Your task to perform on an android device: toggle notifications settings in the gmail app Image 0: 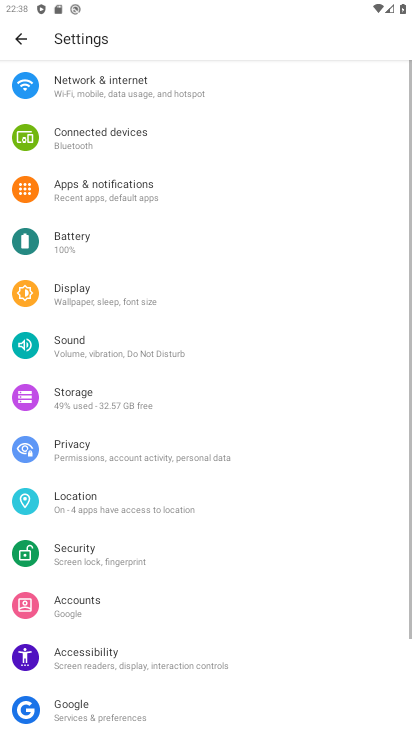
Step 0: press home button
Your task to perform on an android device: toggle notifications settings in the gmail app Image 1: 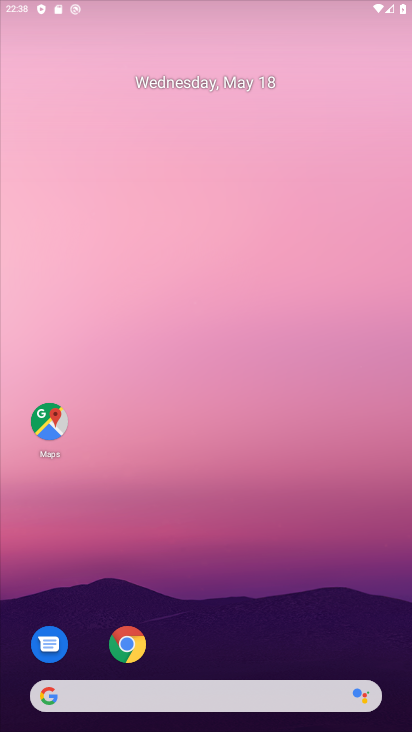
Step 1: drag from (350, 566) to (208, 150)
Your task to perform on an android device: toggle notifications settings in the gmail app Image 2: 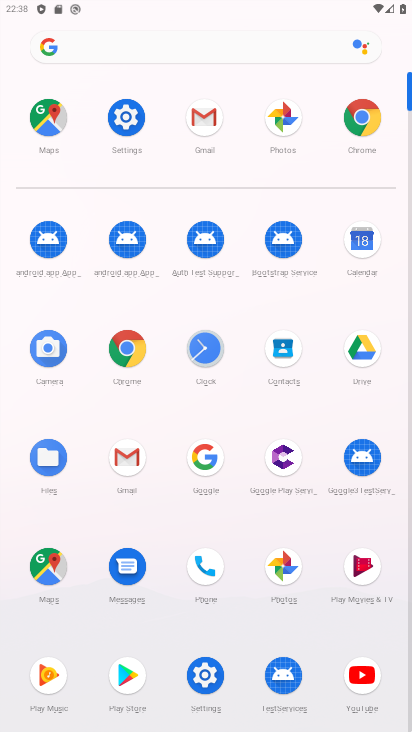
Step 2: click (198, 120)
Your task to perform on an android device: toggle notifications settings in the gmail app Image 3: 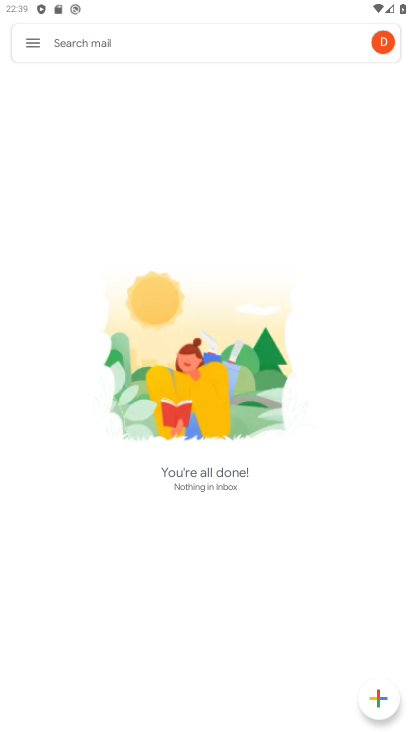
Step 3: click (36, 48)
Your task to perform on an android device: toggle notifications settings in the gmail app Image 4: 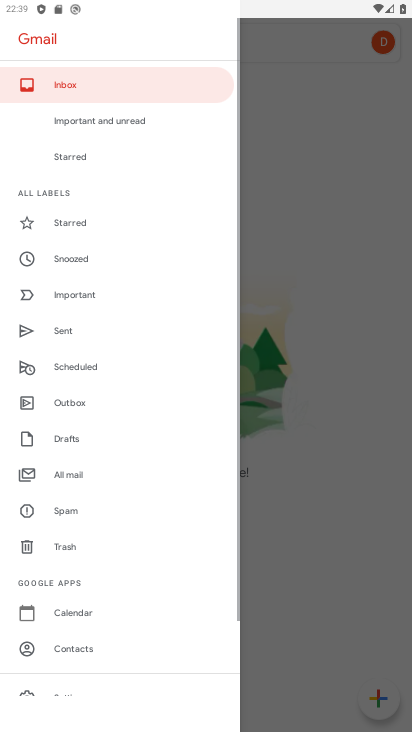
Step 4: drag from (138, 605) to (169, 227)
Your task to perform on an android device: toggle notifications settings in the gmail app Image 5: 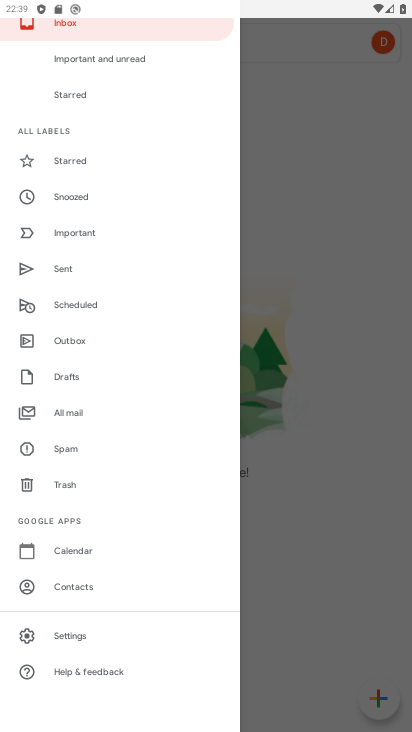
Step 5: click (87, 642)
Your task to perform on an android device: toggle notifications settings in the gmail app Image 6: 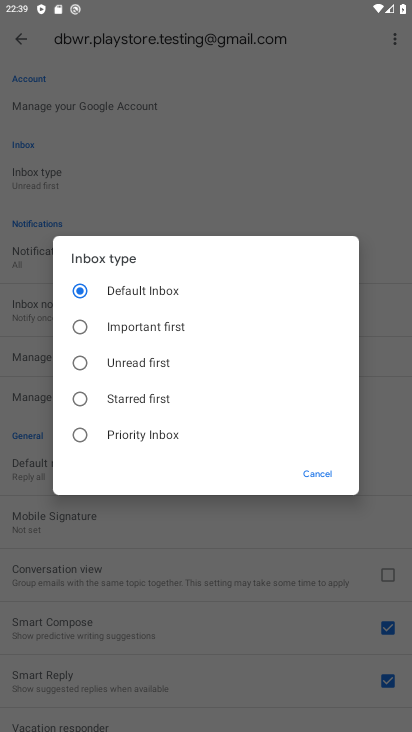
Step 6: click (331, 468)
Your task to perform on an android device: toggle notifications settings in the gmail app Image 7: 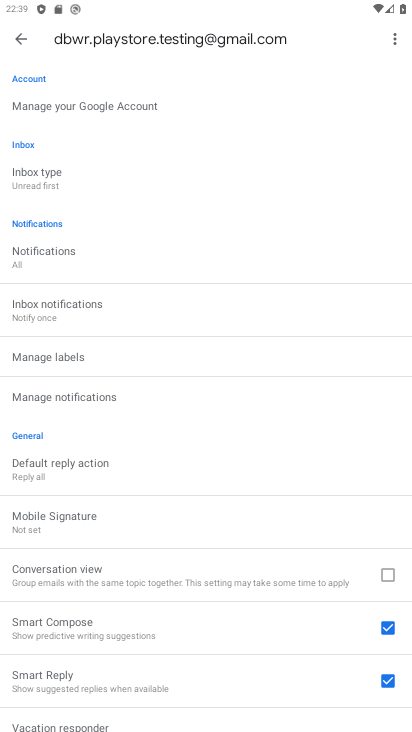
Step 7: drag from (258, 138) to (276, 544)
Your task to perform on an android device: toggle notifications settings in the gmail app Image 8: 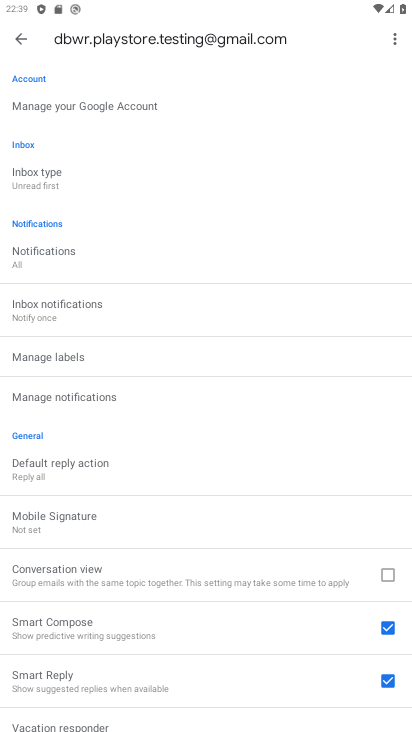
Step 8: click (142, 387)
Your task to perform on an android device: toggle notifications settings in the gmail app Image 9: 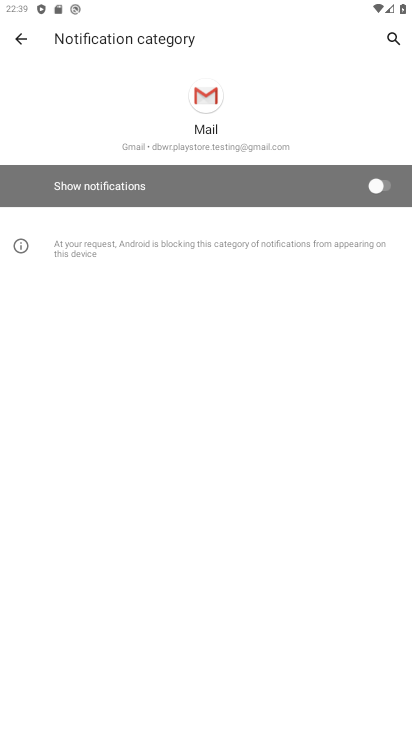
Step 9: click (382, 170)
Your task to perform on an android device: toggle notifications settings in the gmail app Image 10: 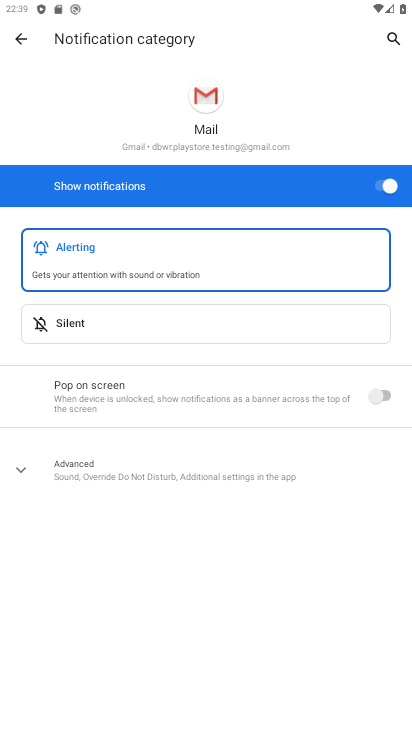
Step 10: task complete